Your task to perform on an android device: Open battery settings Image 0: 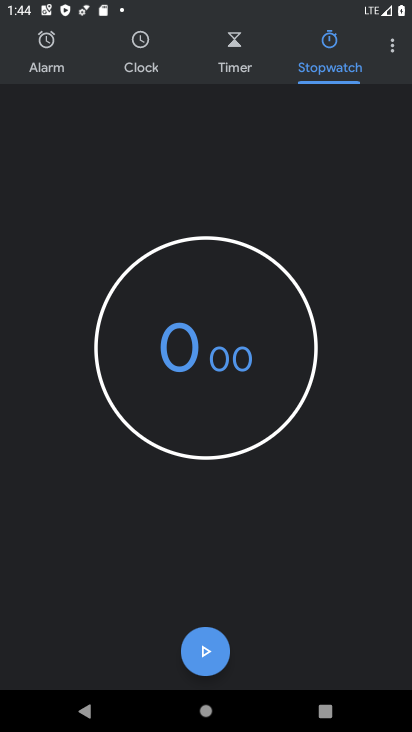
Step 0: press home button
Your task to perform on an android device: Open battery settings Image 1: 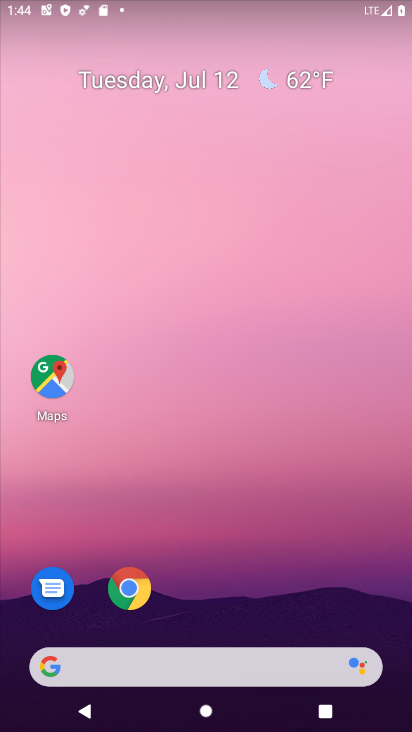
Step 1: drag from (120, 693) to (214, 204)
Your task to perform on an android device: Open battery settings Image 2: 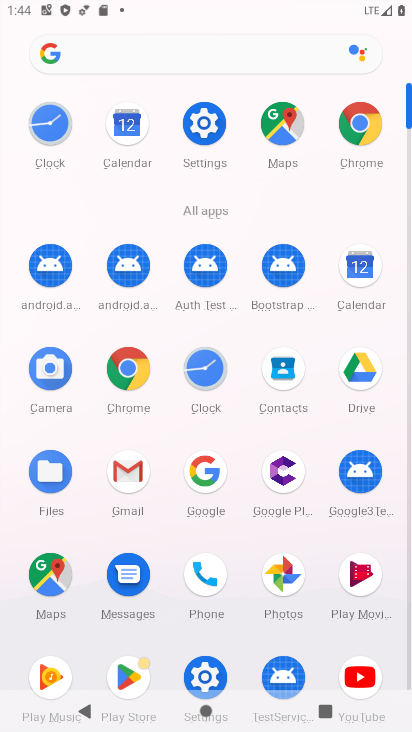
Step 2: click (203, 113)
Your task to perform on an android device: Open battery settings Image 3: 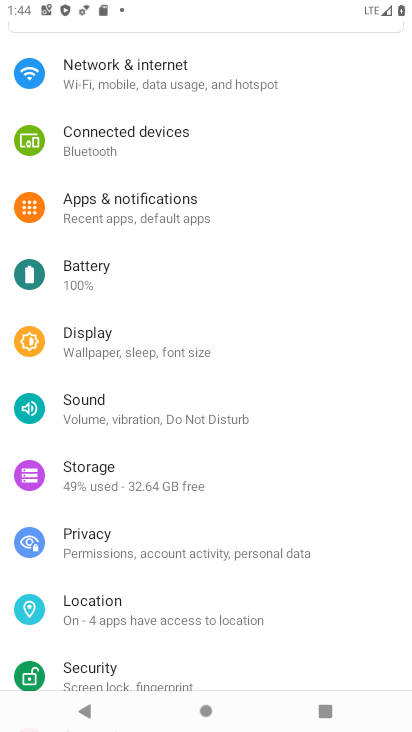
Step 3: click (125, 268)
Your task to perform on an android device: Open battery settings Image 4: 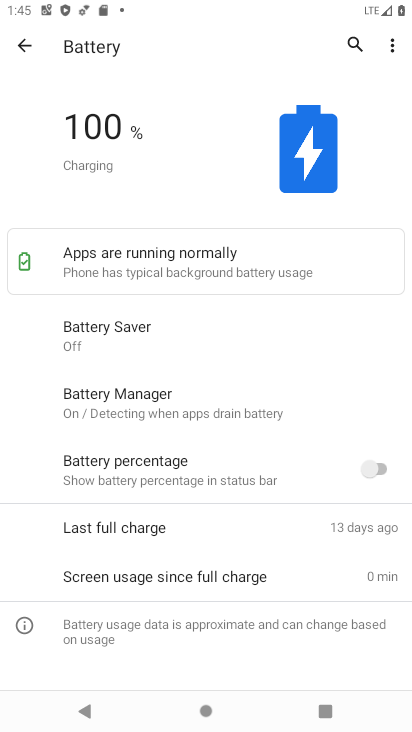
Step 4: task complete